Your task to perform on an android device: open app "YouTube Kids" Image 0: 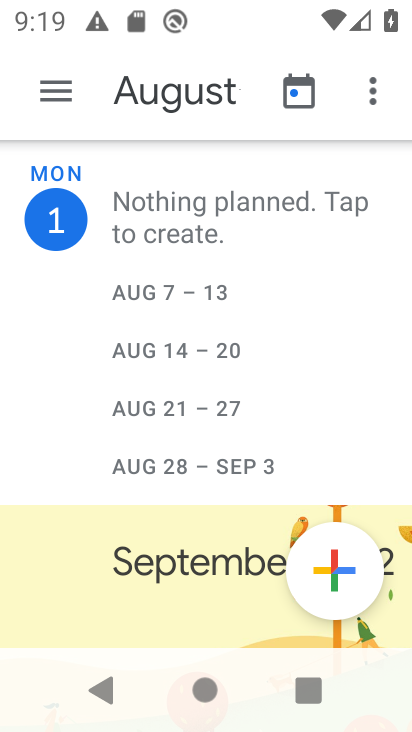
Step 0: press home button
Your task to perform on an android device: open app "YouTube Kids" Image 1: 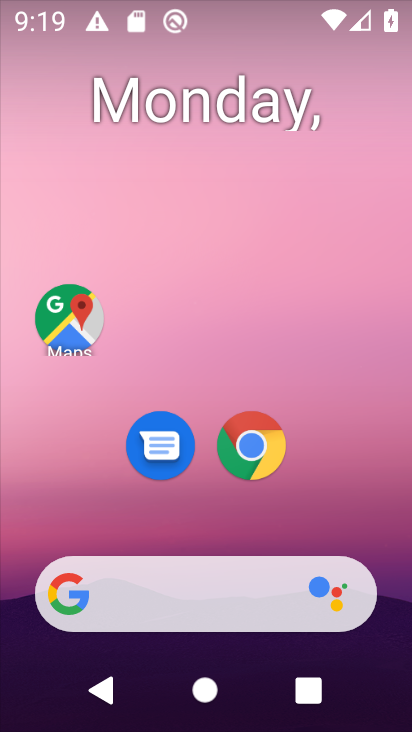
Step 1: drag from (387, 556) to (176, 4)
Your task to perform on an android device: open app "YouTube Kids" Image 2: 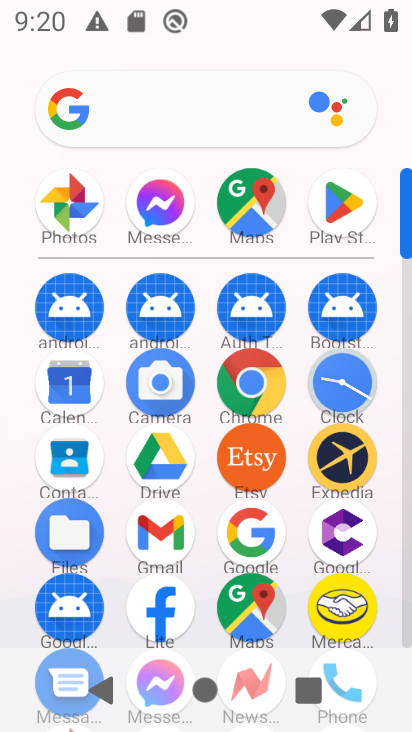
Step 2: click (331, 205)
Your task to perform on an android device: open app "YouTube Kids" Image 3: 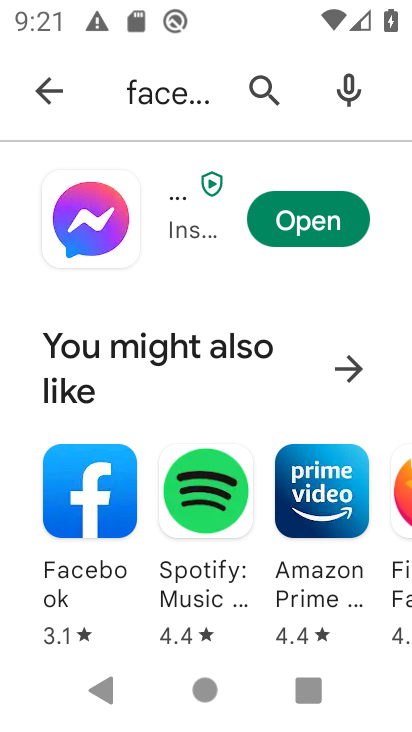
Step 3: press back button
Your task to perform on an android device: open app "YouTube Kids" Image 4: 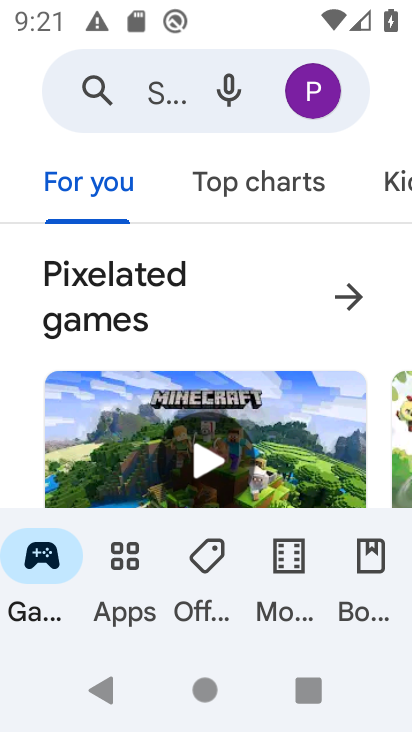
Step 4: click (141, 77)
Your task to perform on an android device: open app "YouTube Kids" Image 5: 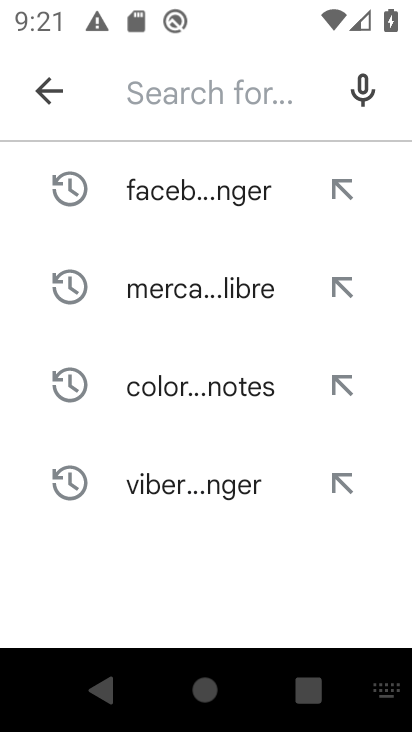
Step 5: type "YouTube Kids"
Your task to perform on an android device: open app "YouTube Kids" Image 6: 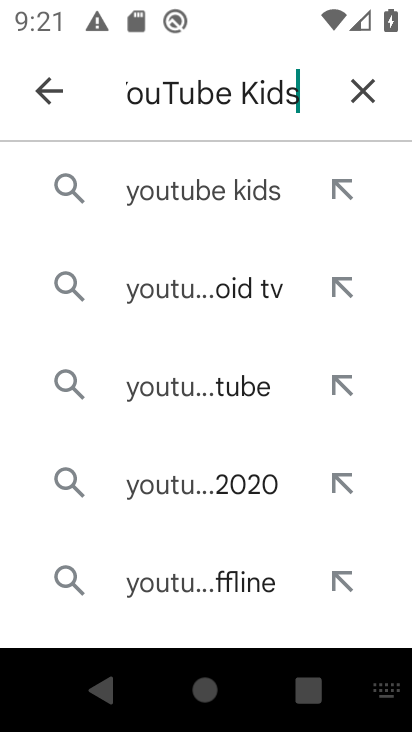
Step 6: click (189, 186)
Your task to perform on an android device: open app "YouTube Kids" Image 7: 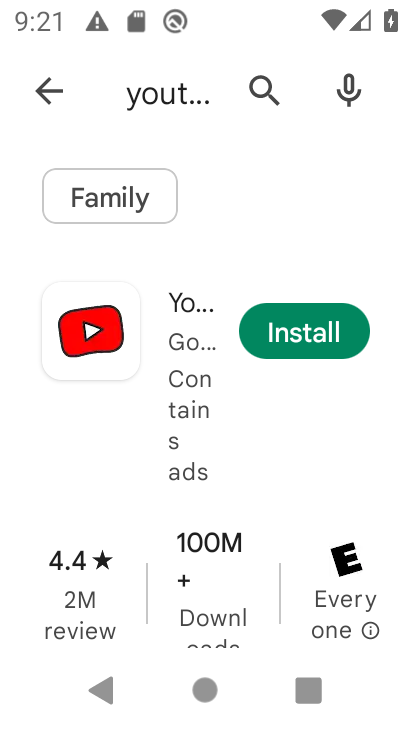
Step 7: task complete